Your task to perform on an android device: Go to Android settings Image 0: 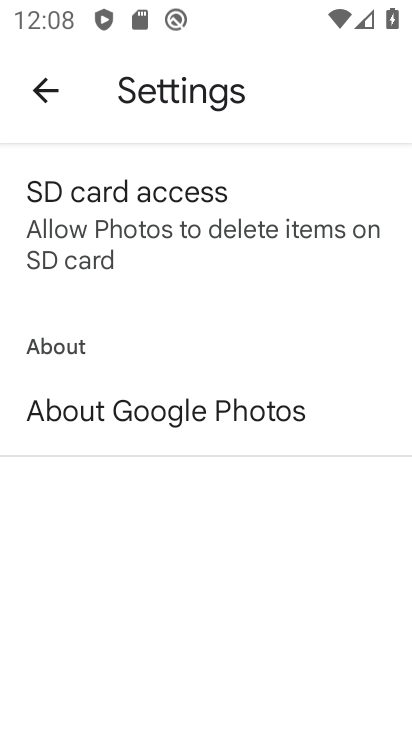
Step 0: task complete